Your task to perform on an android device: Turn off the flashlight Image 0: 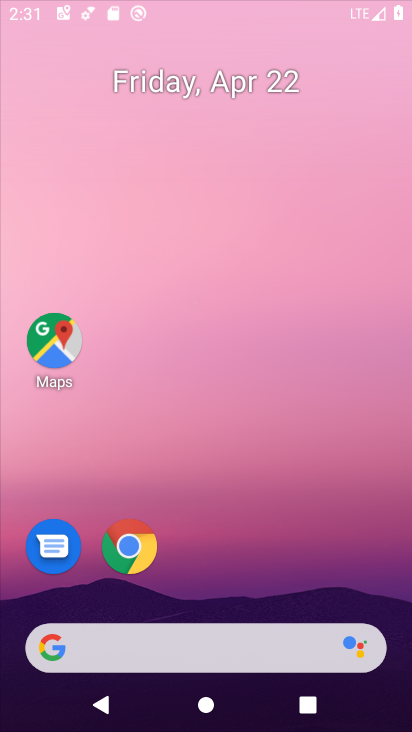
Step 0: click (311, 112)
Your task to perform on an android device: Turn off the flashlight Image 1: 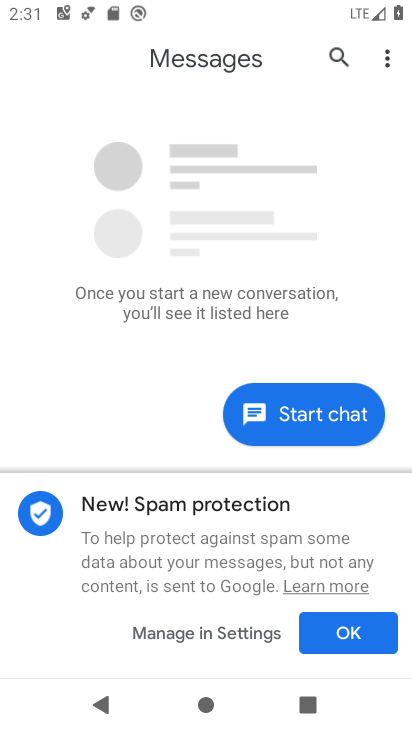
Step 1: click (349, 626)
Your task to perform on an android device: Turn off the flashlight Image 2: 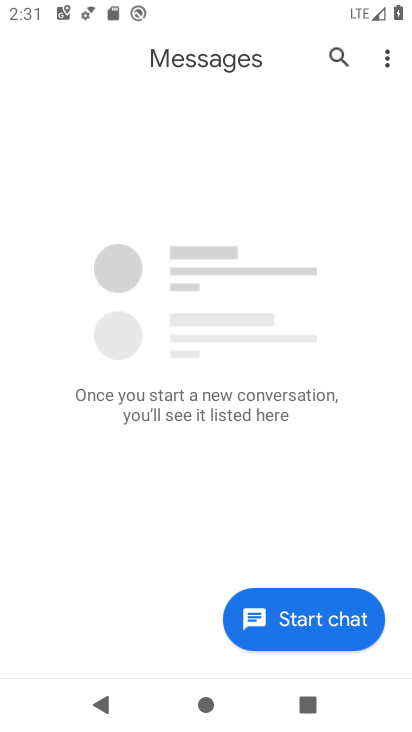
Step 2: task complete